Your task to perform on an android device: toggle wifi Image 0: 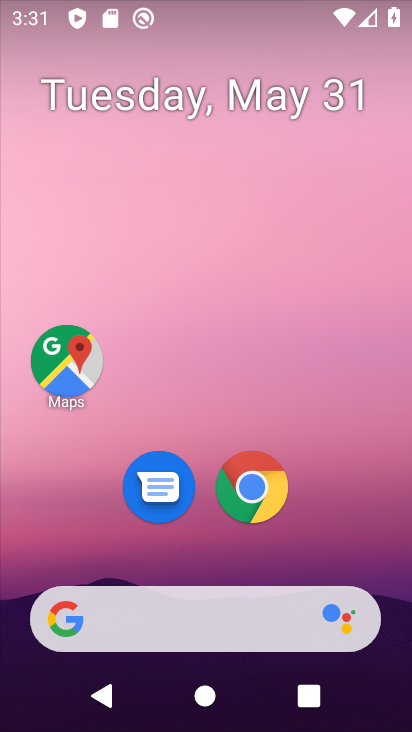
Step 0: drag from (335, 558) to (208, 120)
Your task to perform on an android device: toggle wifi Image 1: 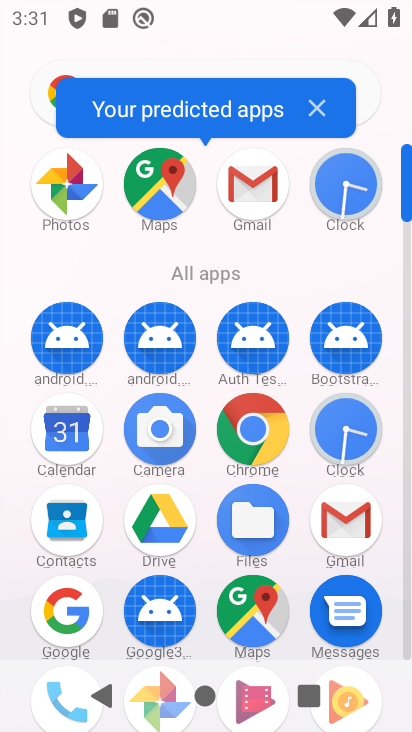
Step 1: click (411, 644)
Your task to perform on an android device: toggle wifi Image 2: 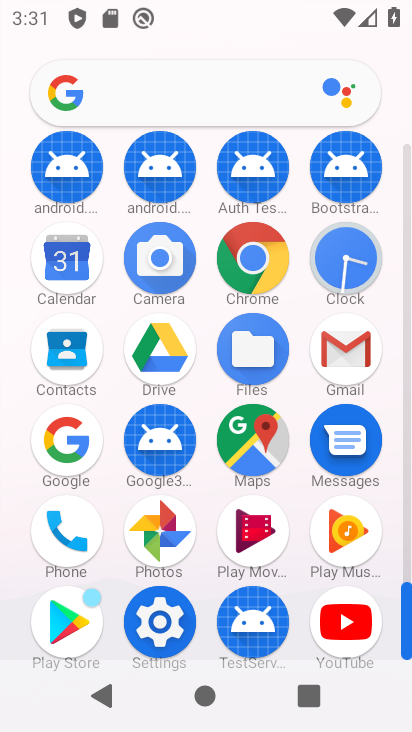
Step 2: click (146, 625)
Your task to perform on an android device: toggle wifi Image 3: 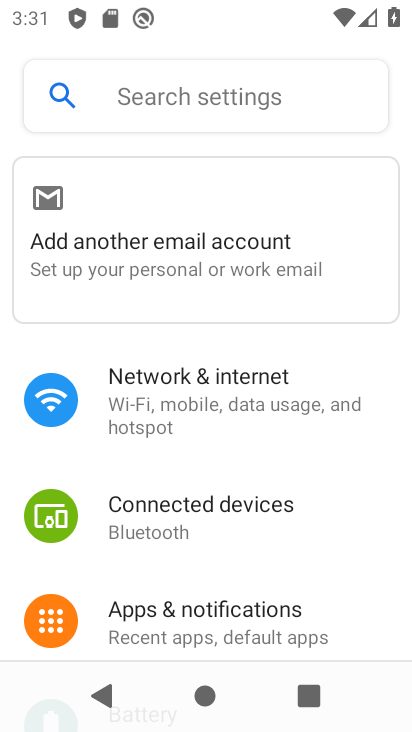
Step 3: click (193, 413)
Your task to perform on an android device: toggle wifi Image 4: 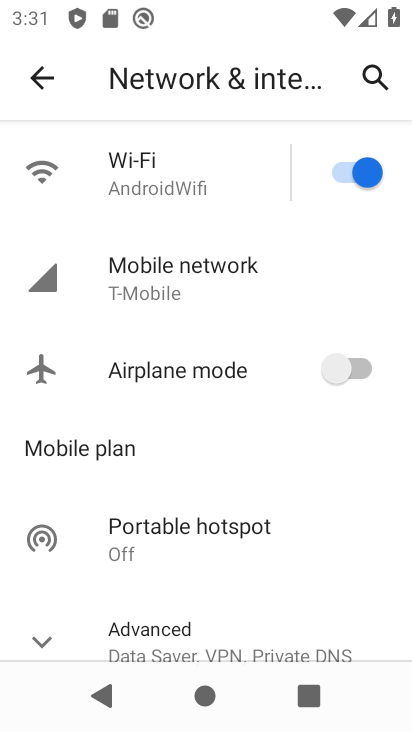
Step 4: click (355, 159)
Your task to perform on an android device: toggle wifi Image 5: 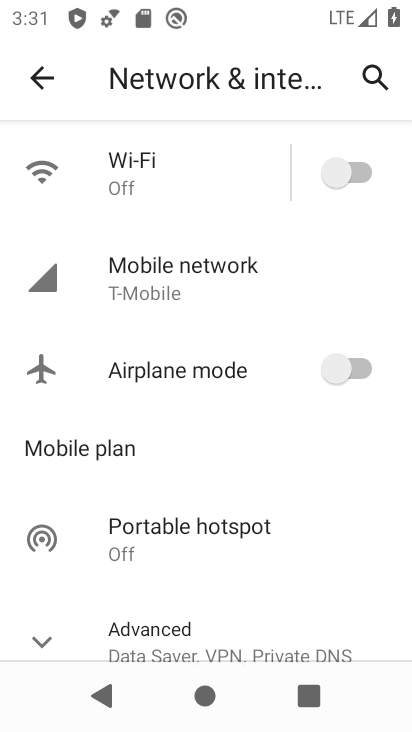
Step 5: task complete